Your task to perform on an android device: check storage Image 0: 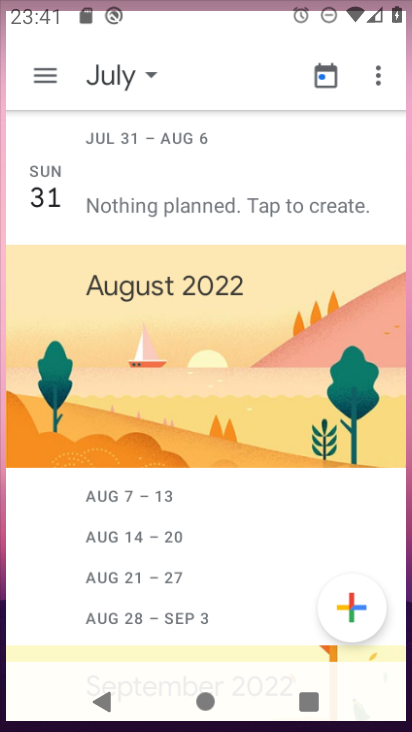
Step 0: press home button
Your task to perform on an android device: check storage Image 1: 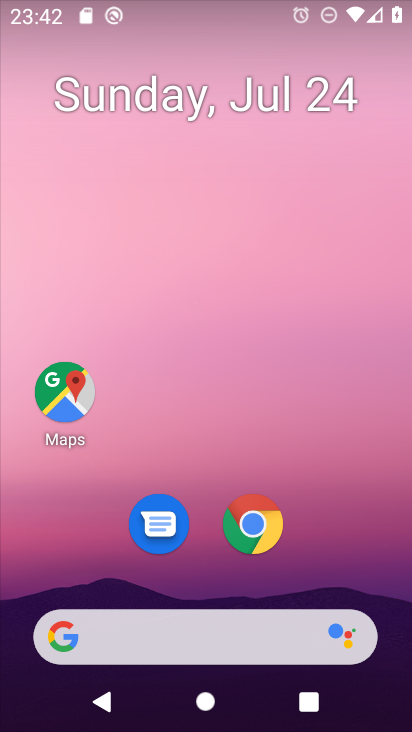
Step 1: drag from (174, 627) to (288, 53)
Your task to perform on an android device: check storage Image 2: 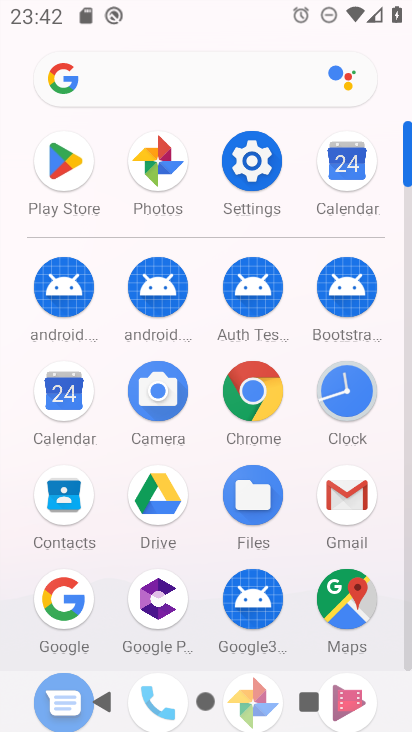
Step 2: click (246, 160)
Your task to perform on an android device: check storage Image 3: 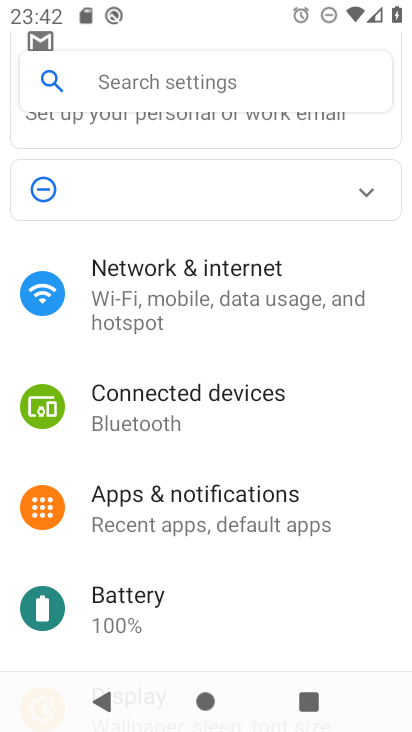
Step 3: drag from (219, 616) to (293, 134)
Your task to perform on an android device: check storage Image 4: 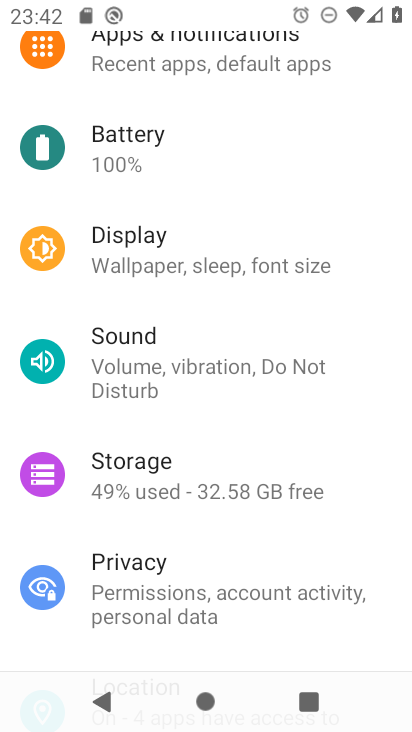
Step 4: click (151, 478)
Your task to perform on an android device: check storage Image 5: 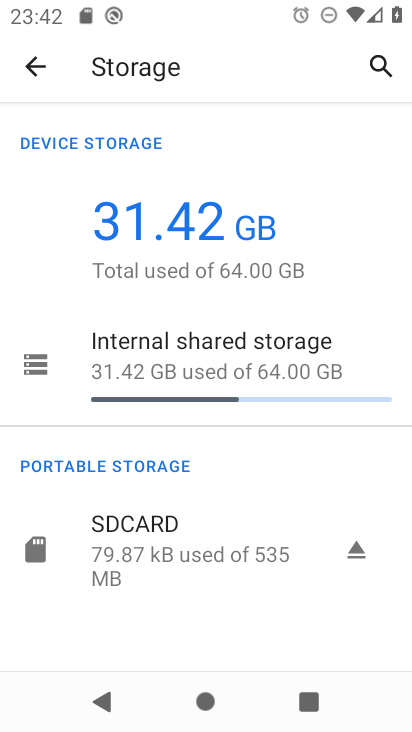
Step 5: task complete